Your task to perform on an android device: turn off translation in the chrome app Image 0: 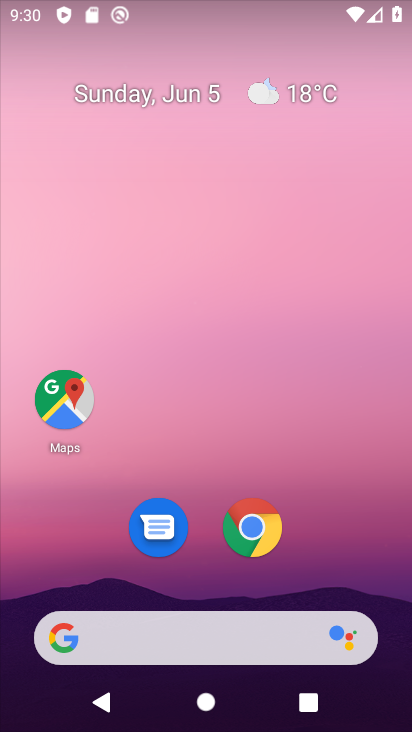
Step 0: task complete